Your task to perform on an android device: change timer sound Image 0: 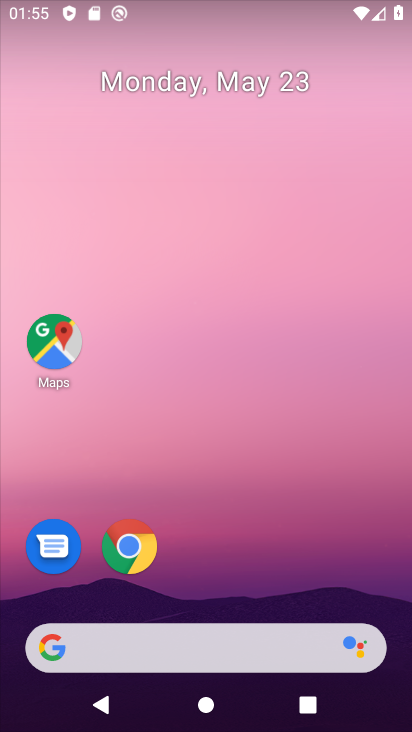
Step 0: drag from (275, 534) to (338, 21)
Your task to perform on an android device: change timer sound Image 1: 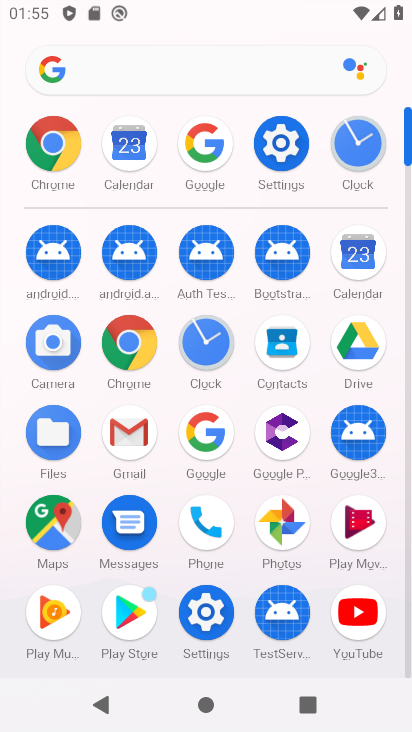
Step 1: click (284, 147)
Your task to perform on an android device: change timer sound Image 2: 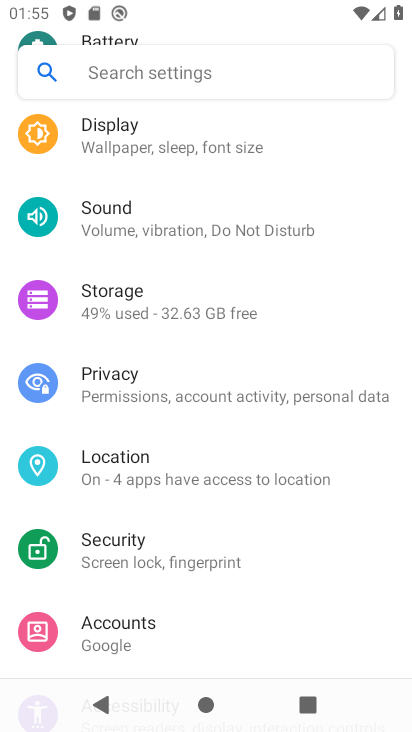
Step 2: click (141, 227)
Your task to perform on an android device: change timer sound Image 3: 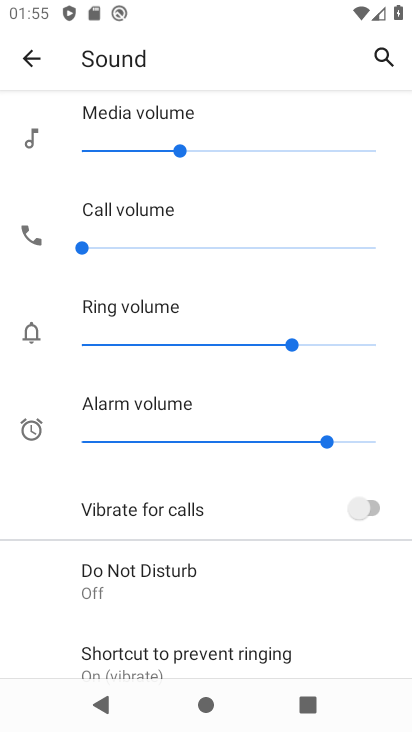
Step 3: task complete